Your task to perform on an android device: Open internet settings Image 0: 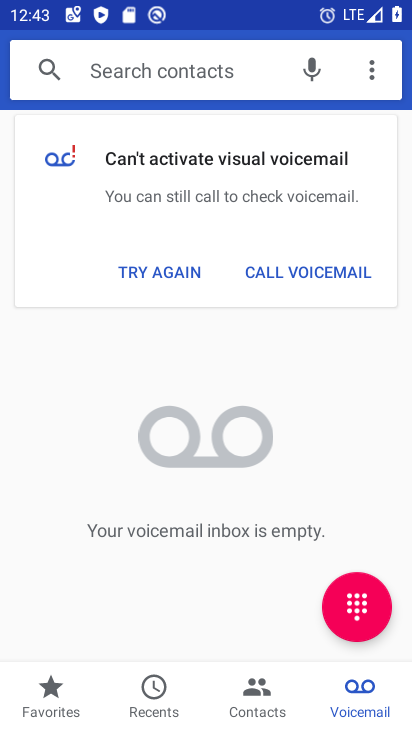
Step 0: press home button
Your task to perform on an android device: Open internet settings Image 1: 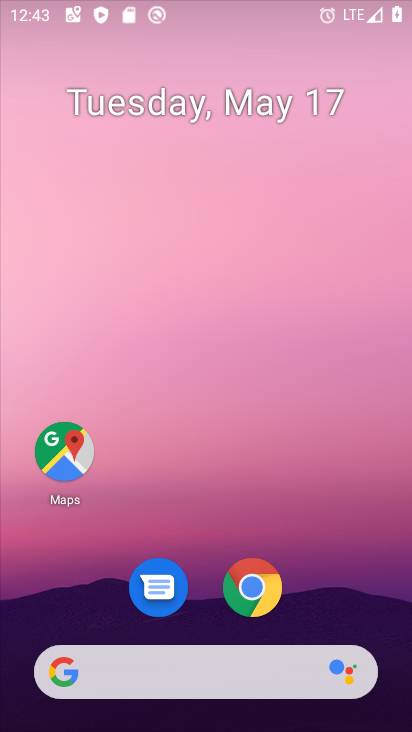
Step 1: drag from (400, 632) to (237, 75)
Your task to perform on an android device: Open internet settings Image 2: 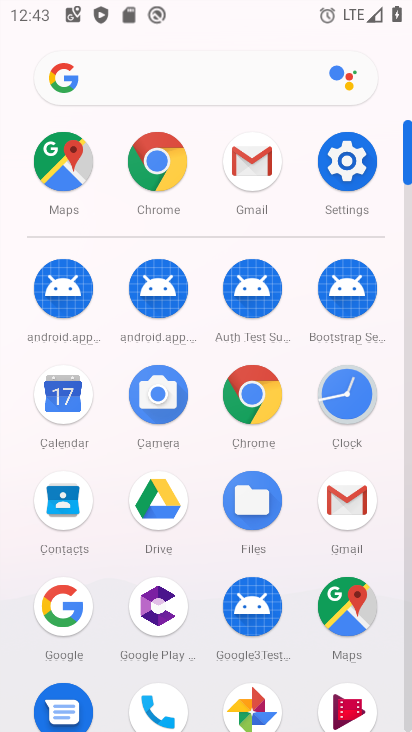
Step 2: click (354, 168)
Your task to perform on an android device: Open internet settings Image 3: 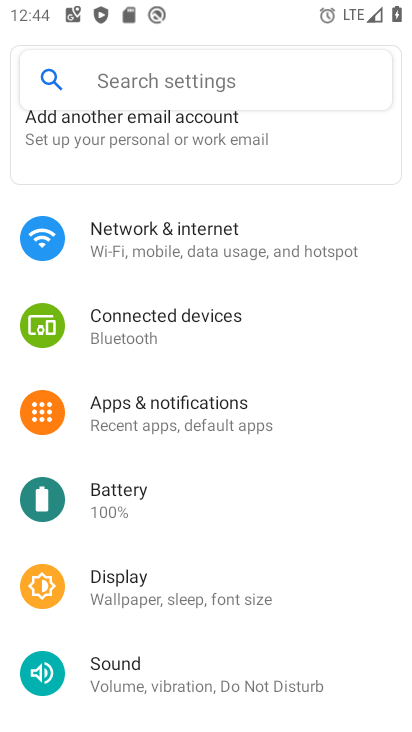
Step 3: click (173, 239)
Your task to perform on an android device: Open internet settings Image 4: 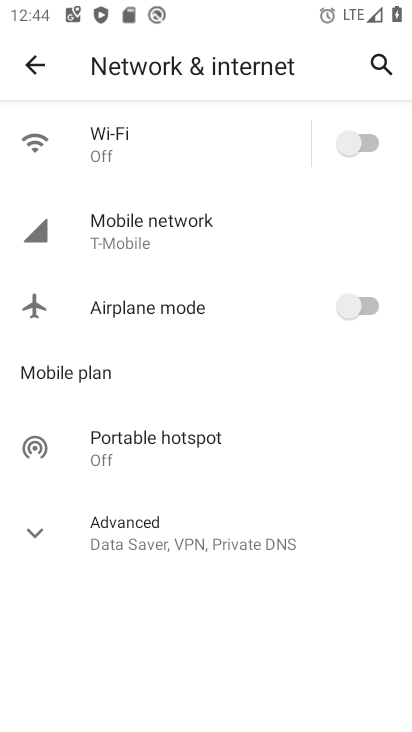
Step 4: task complete